Your task to perform on an android device: Go to internet settings Image 0: 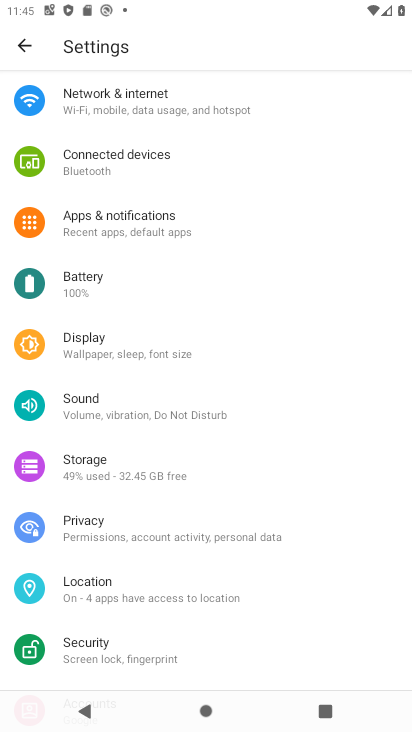
Step 0: click (194, 96)
Your task to perform on an android device: Go to internet settings Image 1: 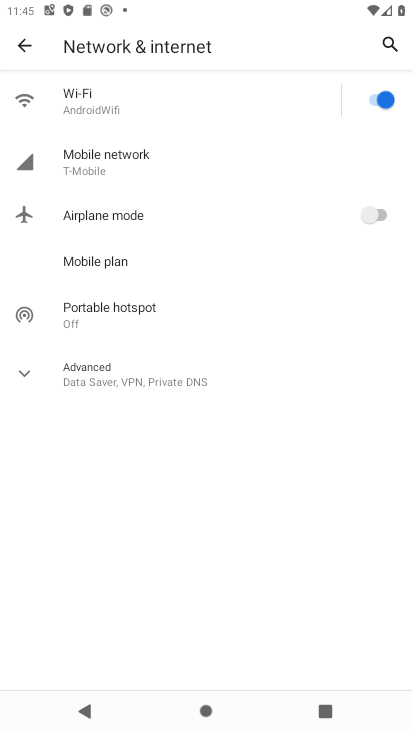
Step 1: click (31, 392)
Your task to perform on an android device: Go to internet settings Image 2: 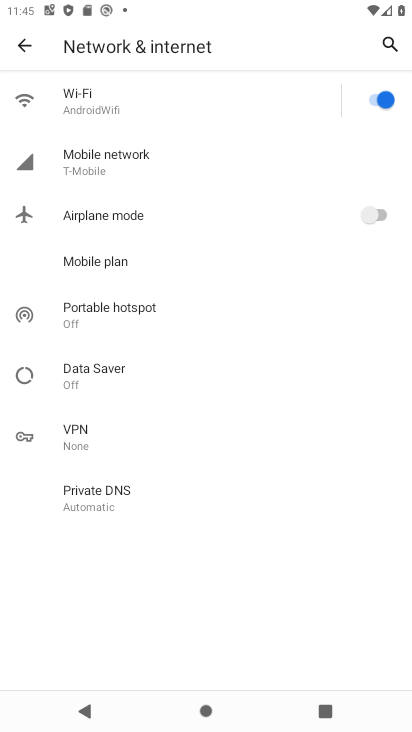
Step 2: task complete